Your task to perform on an android device: check storage Image 0: 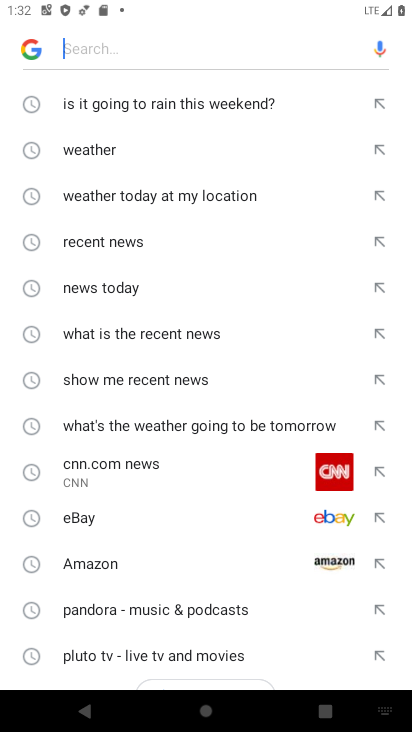
Step 0: press home button
Your task to perform on an android device: check storage Image 1: 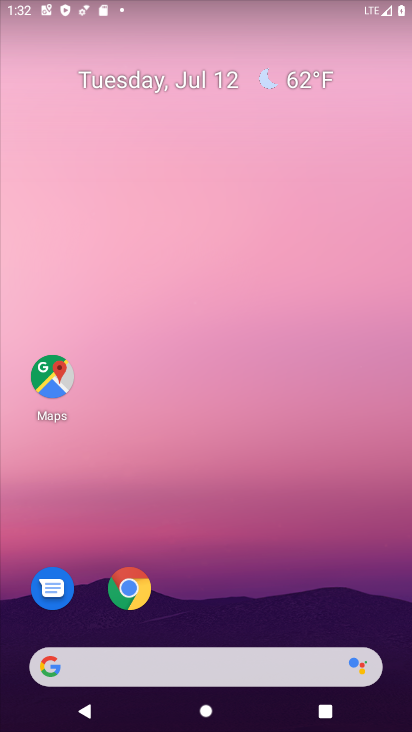
Step 1: drag from (159, 418) to (222, 94)
Your task to perform on an android device: check storage Image 2: 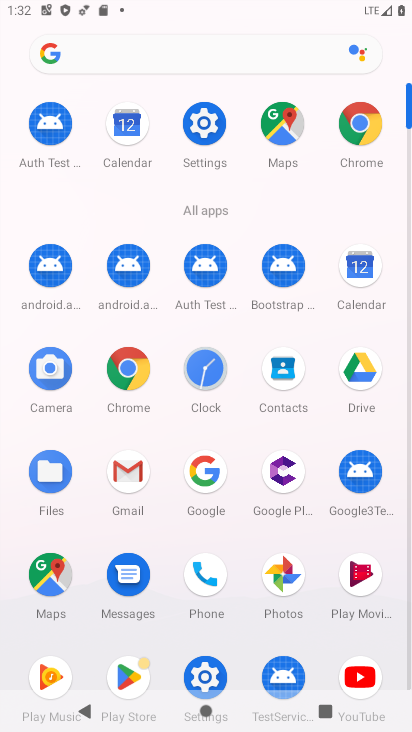
Step 2: click (204, 124)
Your task to perform on an android device: check storage Image 3: 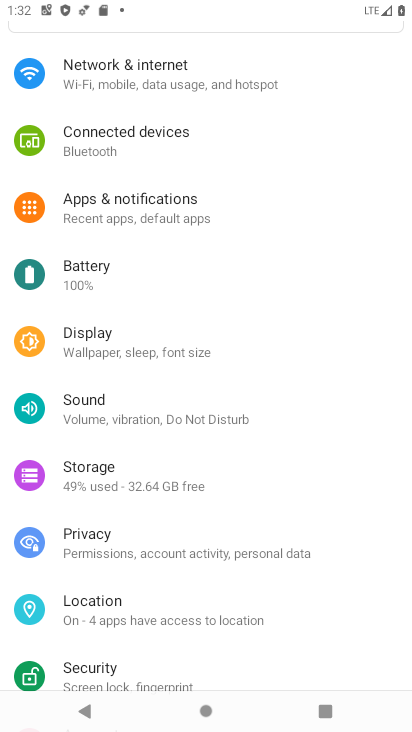
Step 3: click (159, 482)
Your task to perform on an android device: check storage Image 4: 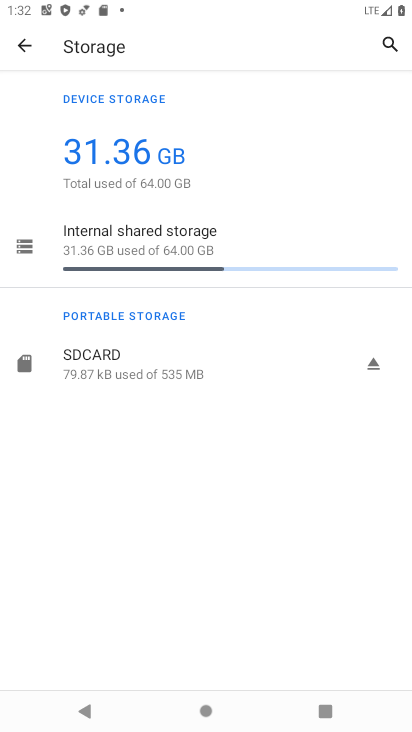
Step 4: task complete